Your task to perform on an android device: check battery use Image 0: 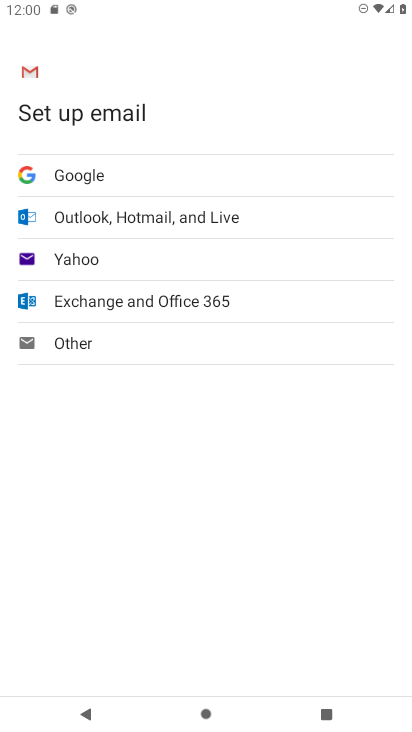
Step 0: press home button
Your task to perform on an android device: check battery use Image 1: 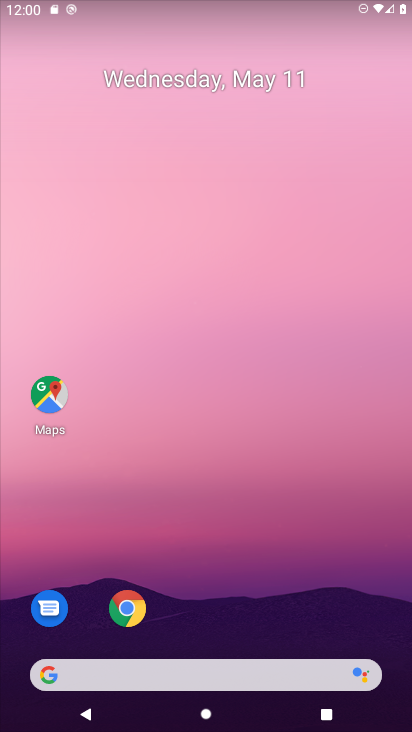
Step 1: drag from (229, 596) to (235, 104)
Your task to perform on an android device: check battery use Image 2: 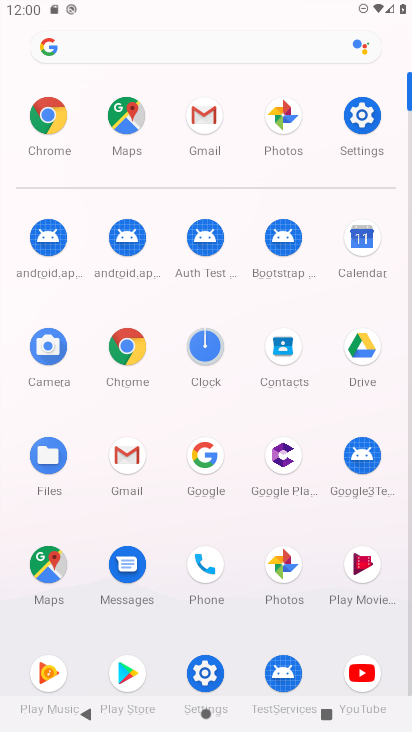
Step 2: click (366, 116)
Your task to perform on an android device: check battery use Image 3: 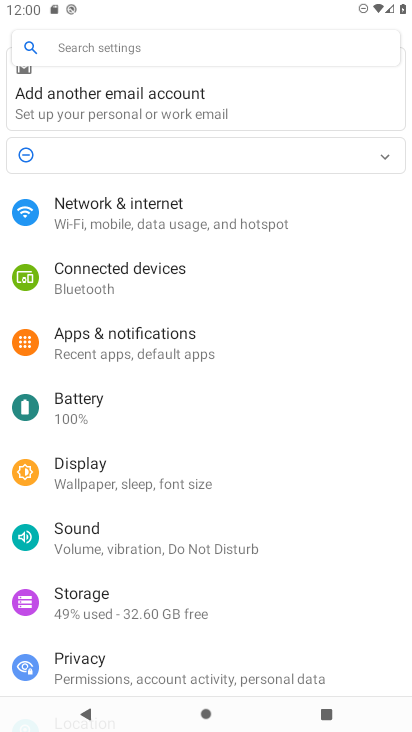
Step 3: click (140, 409)
Your task to perform on an android device: check battery use Image 4: 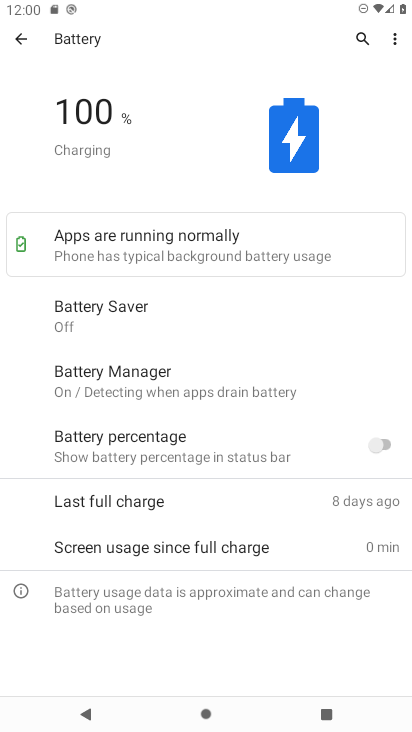
Step 4: click (394, 31)
Your task to perform on an android device: check battery use Image 5: 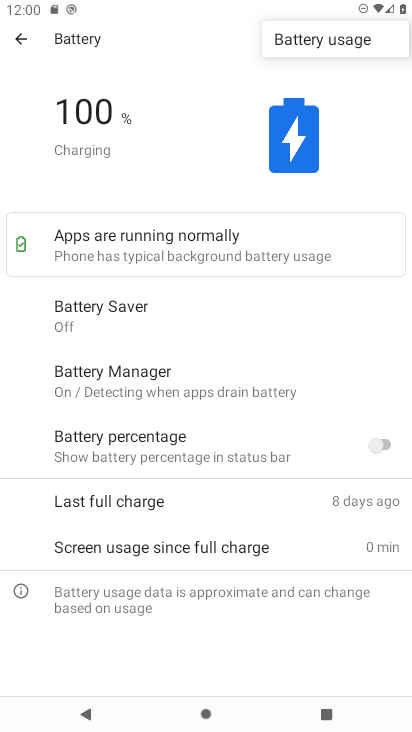
Step 5: click (355, 35)
Your task to perform on an android device: check battery use Image 6: 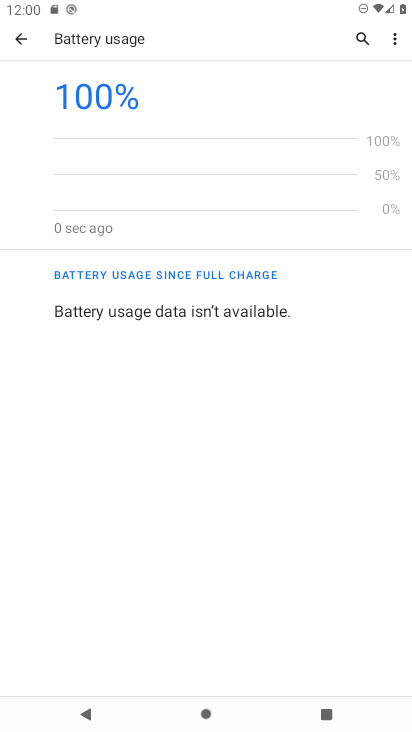
Step 6: task complete